Your task to perform on an android device: Open Android settings Image 0: 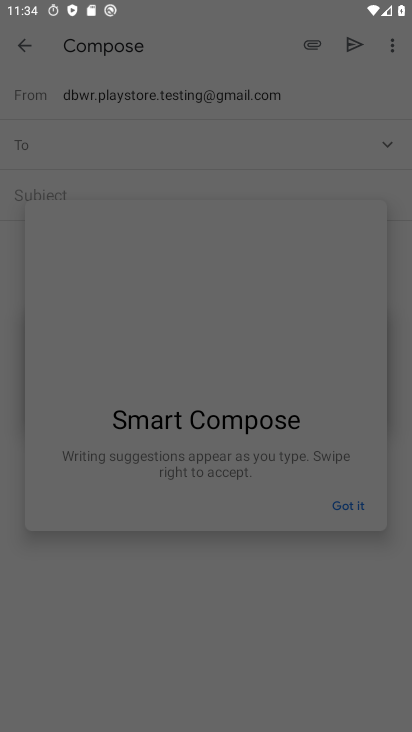
Step 0: press home button
Your task to perform on an android device: Open Android settings Image 1: 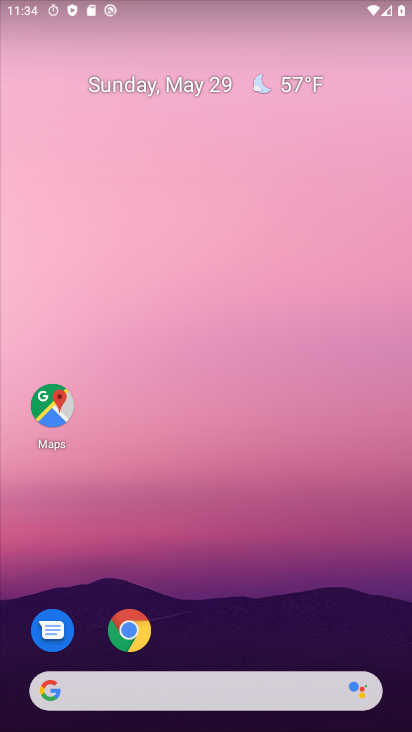
Step 1: drag from (282, 708) to (207, 241)
Your task to perform on an android device: Open Android settings Image 2: 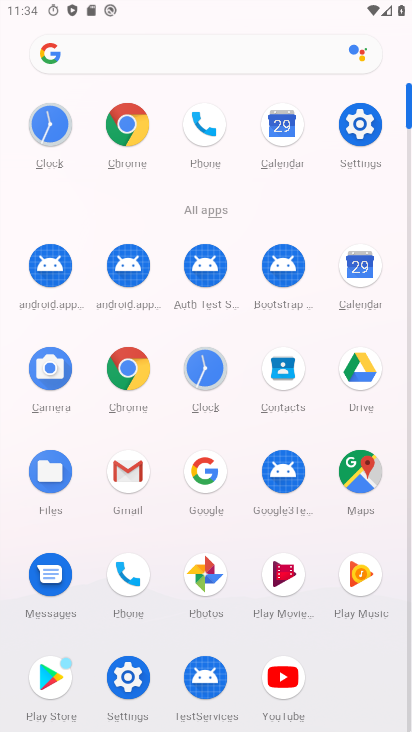
Step 2: click (362, 132)
Your task to perform on an android device: Open Android settings Image 3: 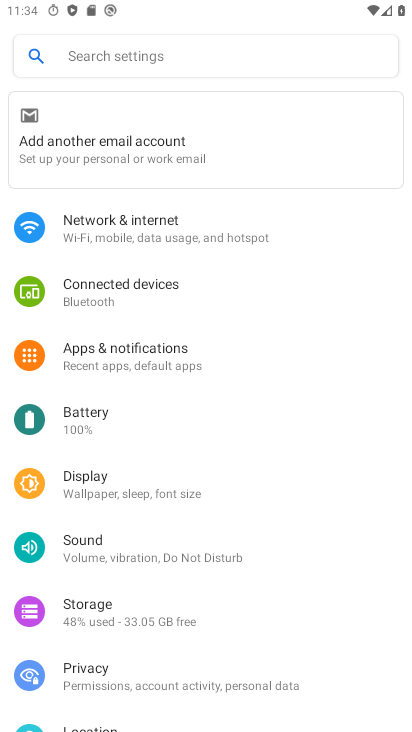
Step 3: click (138, 62)
Your task to perform on an android device: Open Android settings Image 4: 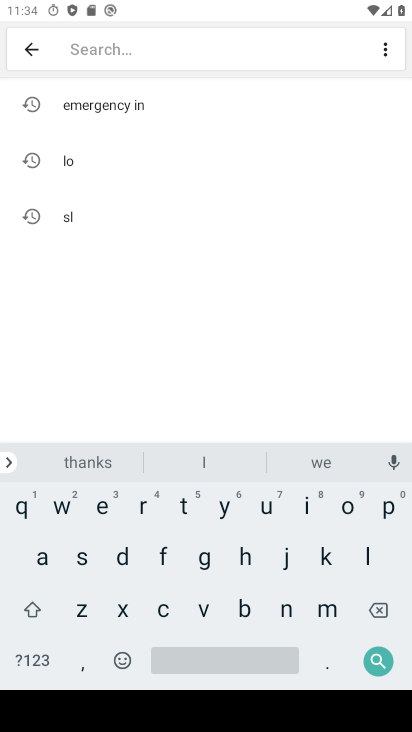
Step 4: click (32, 574)
Your task to perform on an android device: Open Android settings Image 5: 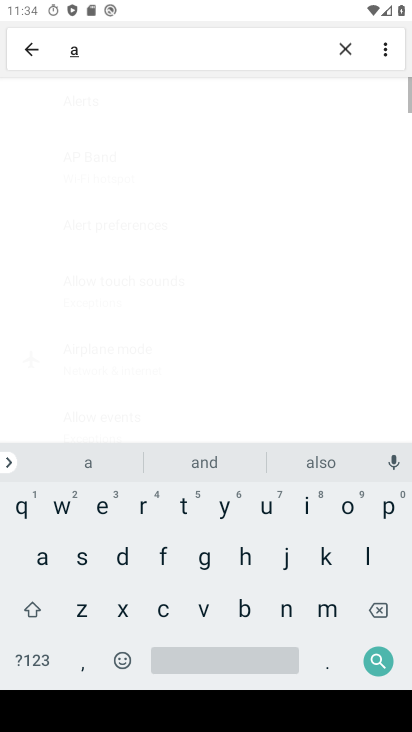
Step 5: click (288, 613)
Your task to perform on an android device: Open Android settings Image 6: 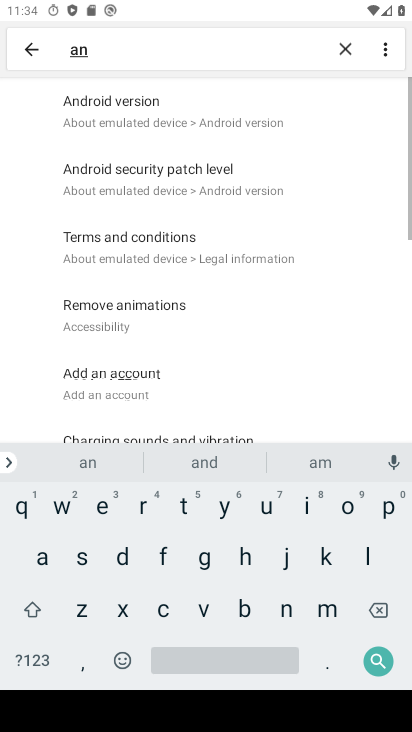
Step 6: click (151, 107)
Your task to perform on an android device: Open Android settings Image 7: 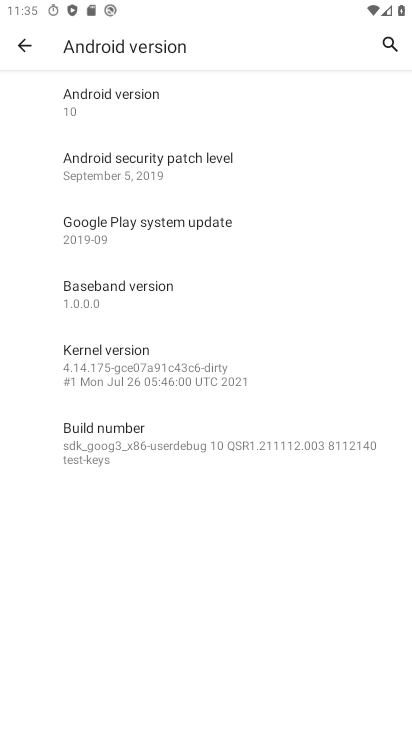
Step 7: click (195, 90)
Your task to perform on an android device: Open Android settings Image 8: 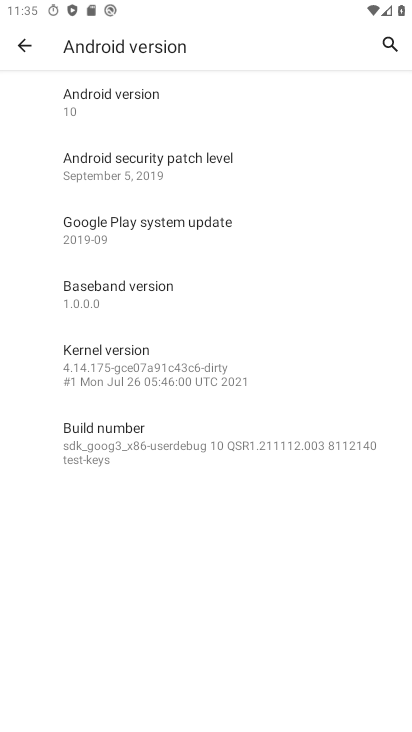
Step 8: task complete